Your task to perform on an android device: change the clock display to analog Image 0: 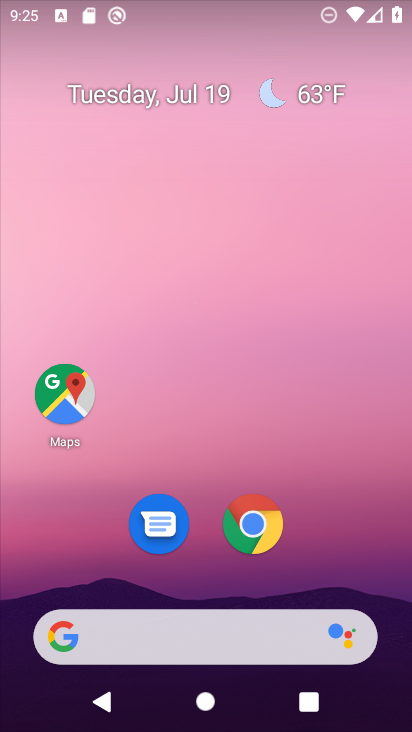
Step 0: drag from (329, 520) to (312, 54)
Your task to perform on an android device: change the clock display to analog Image 1: 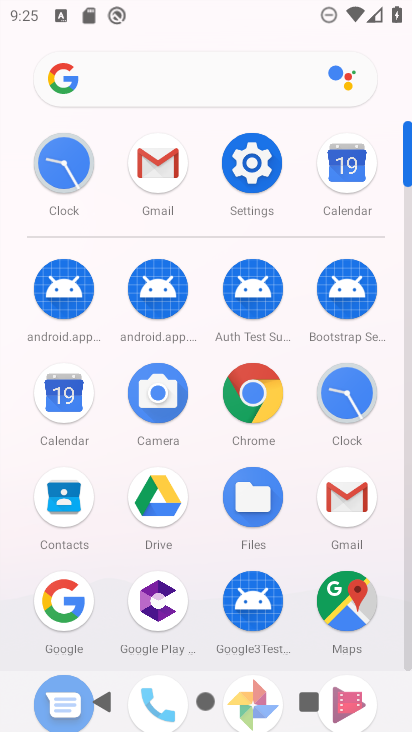
Step 1: click (91, 163)
Your task to perform on an android device: change the clock display to analog Image 2: 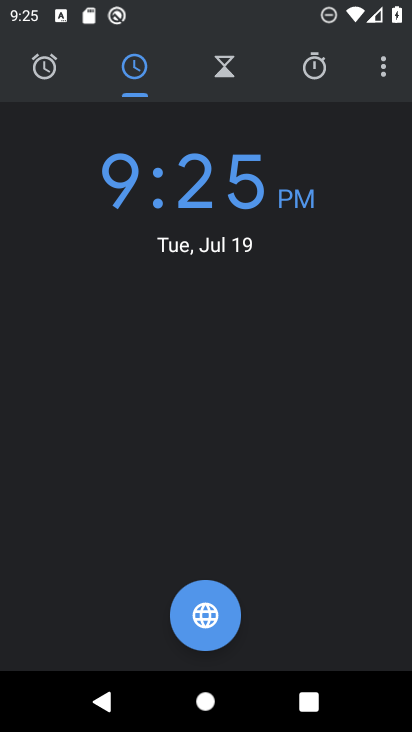
Step 2: click (380, 67)
Your task to perform on an android device: change the clock display to analog Image 3: 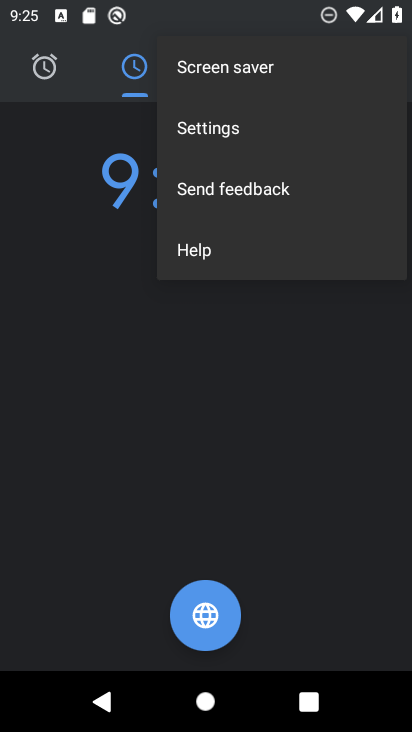
Step 3: click (266, 129)
Your task to perform on an android device: change the clock display to analog Image 4: 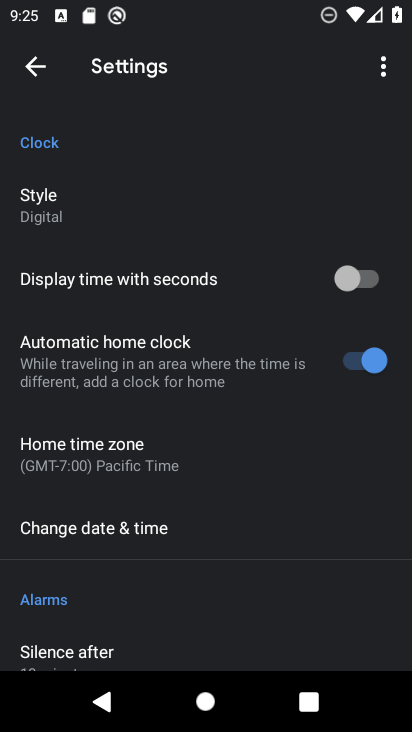
Step 4: click (61, 210)
Your task to perform on an android device: change the clock display to analog Image 5: 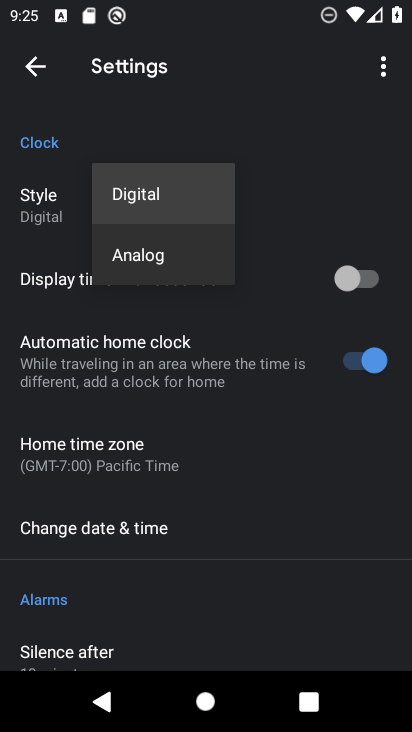
Step 5: click (130, 265)
Your task to perform on an android device: change the clock display to analog Image 6: 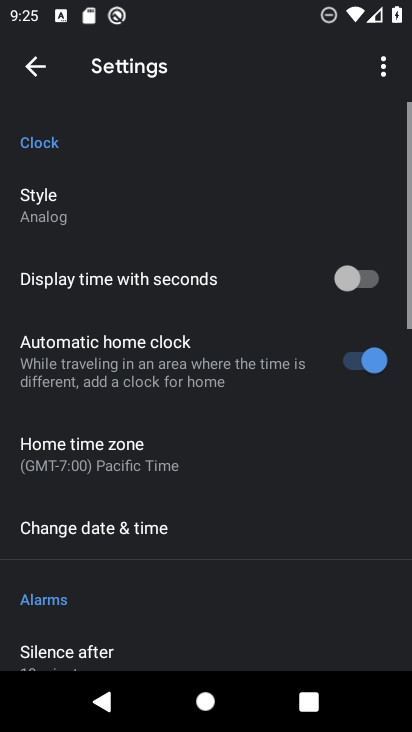
Step 6: click (41, 57)
Your task to perform on an android device: change the clock display to analog Image 7: 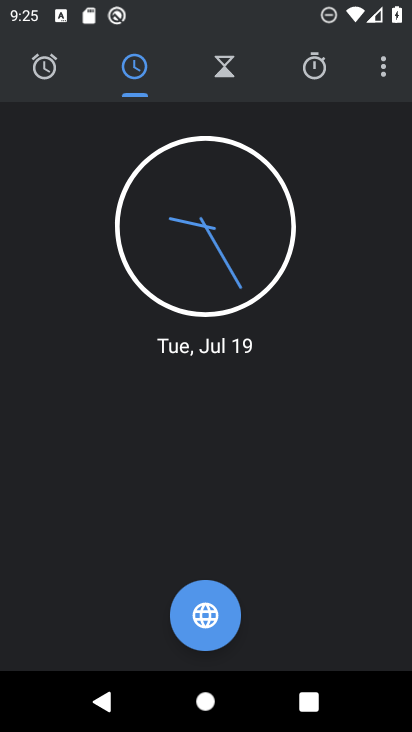
Step 7: task complete